Your task to perform on an android device: Go to Reddit.com Image 0: 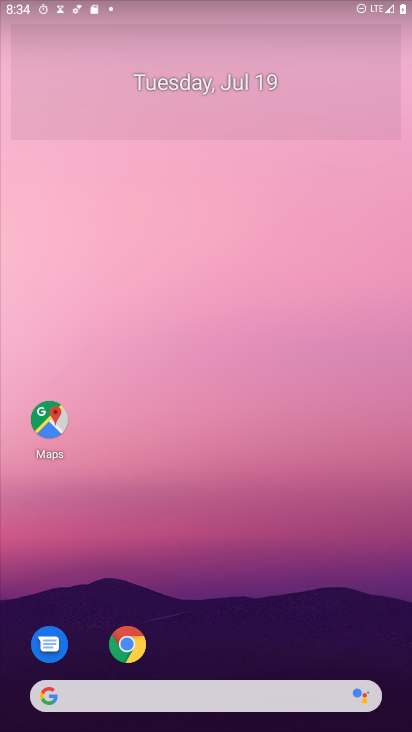
Step 0: click (82, 696)
Your task to perform on an android device: Go to Reddit.com Image 1: 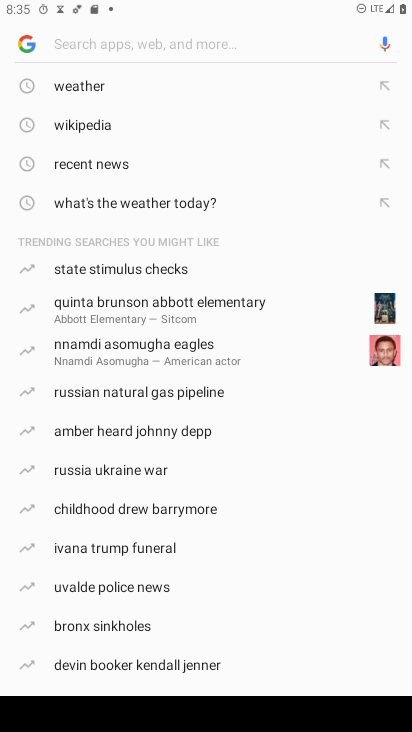
Step 1: type "Reddit.com"
Your task to perform on an android device: Go to Reddit.com Image 2: 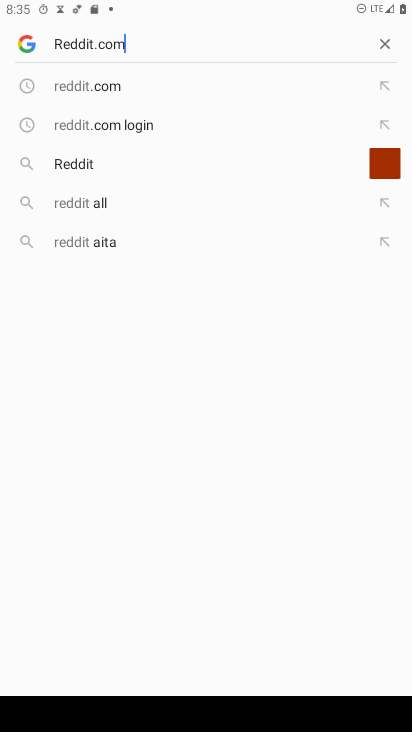
Step 2: type ""
Your task to perform on an android device: Go to Reddit.com Image 3: 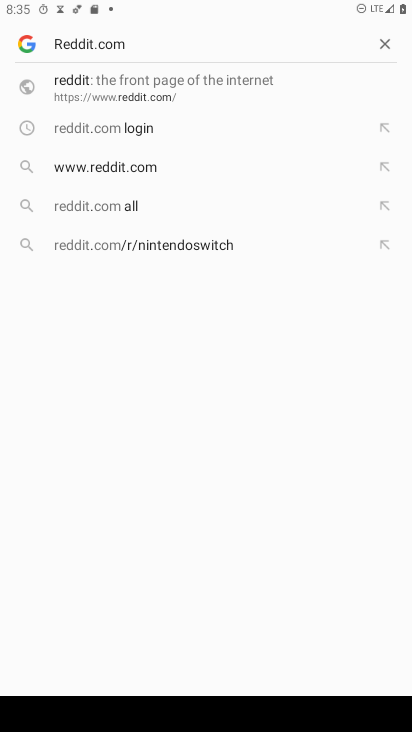
Step 3: type ""
Your task to perform on an android device: Go to Reddit.com Image 4: 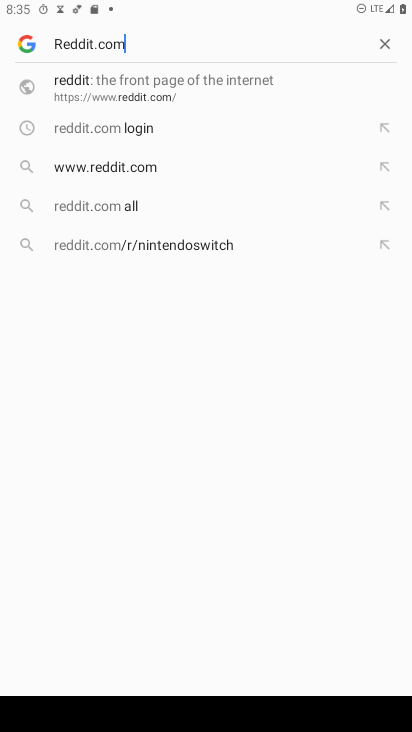
Step 4: type ""
Your task to perform on an android device: Go to Reddit.com Image 5: 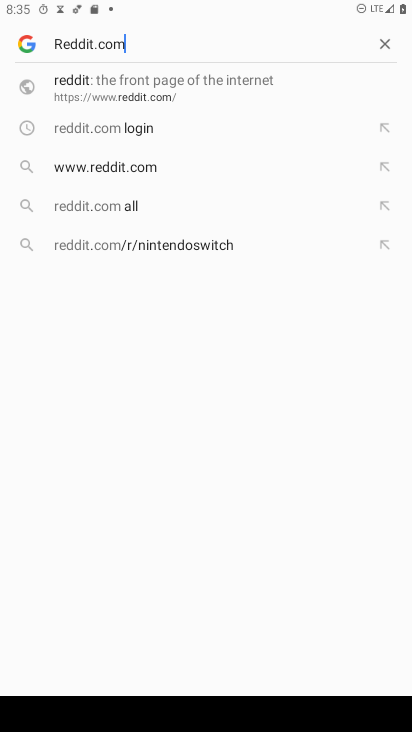
Step 5: task complete